Your task to perform on an android device: What is the recent news? Image 0: 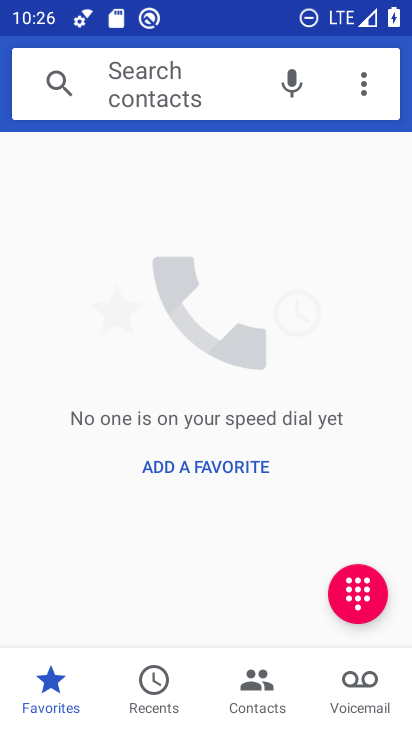
Step 0: press home button
Your task to perform on an android device: What is the recent news? Image 1: 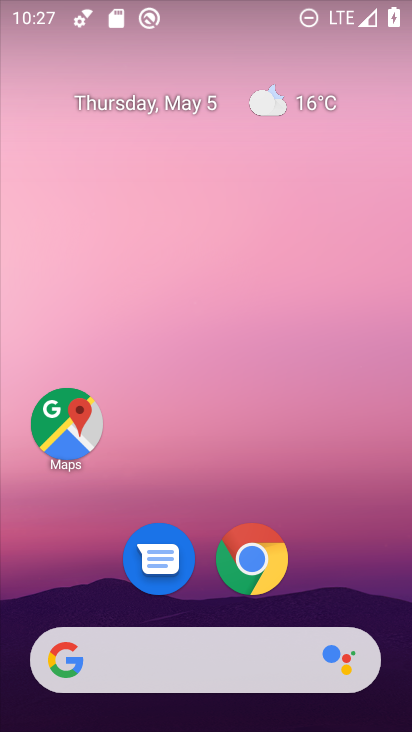
Step 1: click (252, 537)
Your task to perform on an android device: What is the recent news? Image 2: 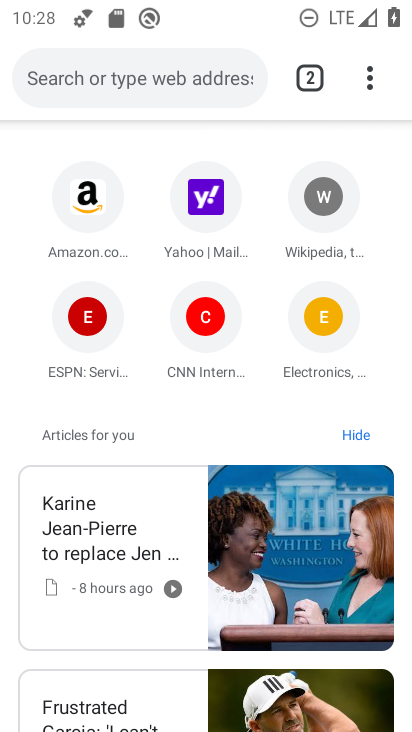
Step 2: click (78, 518)
Your task to perform on an android device: What is the recent news? Image 3: 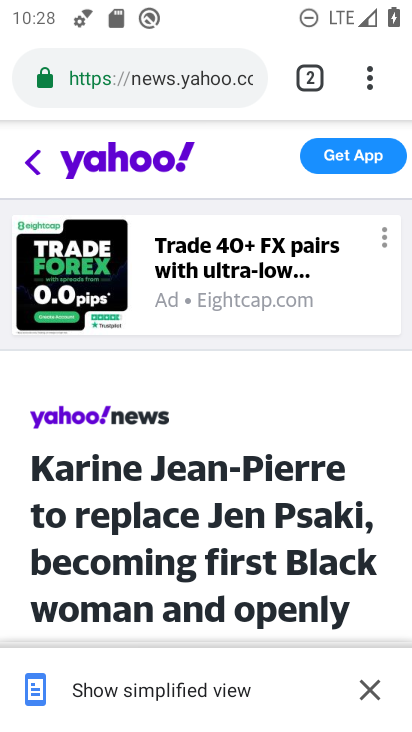
Step 3: task complete